Your task to perform on an android device: Go to network settings Image 0: 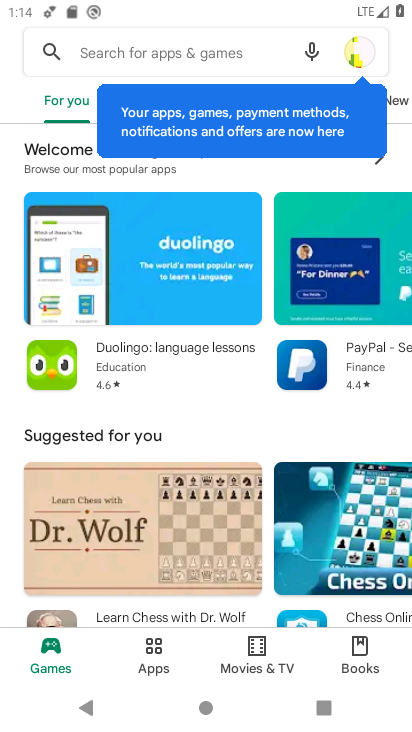
Step 0: press home button
Your task to perform on an android device: Go to network settings Image 1: 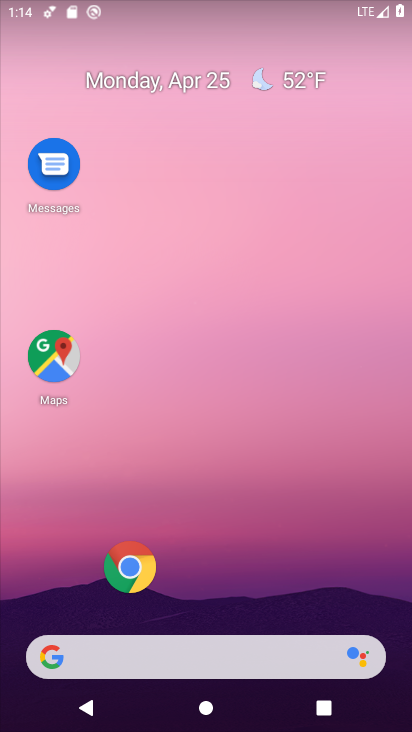
Step 1: drag from (274, 541) to (308, 10)
Your task to perform on an android device: Go to network settings Image 2: 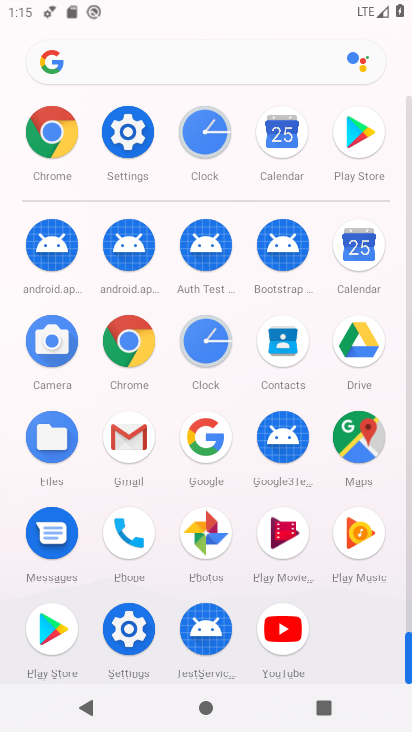
Step 2: click (126, 136)
Your task to perform on an android device: Go to network settings Image 3: 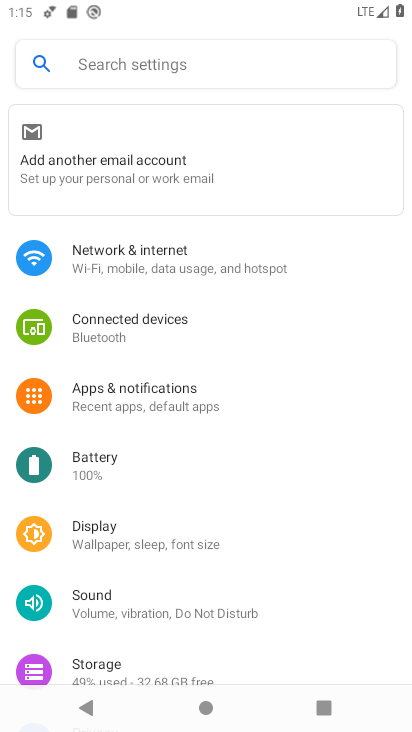
Step 3: click (194, 282)
Your task to perform on an android device: Go to network settings Image 4: 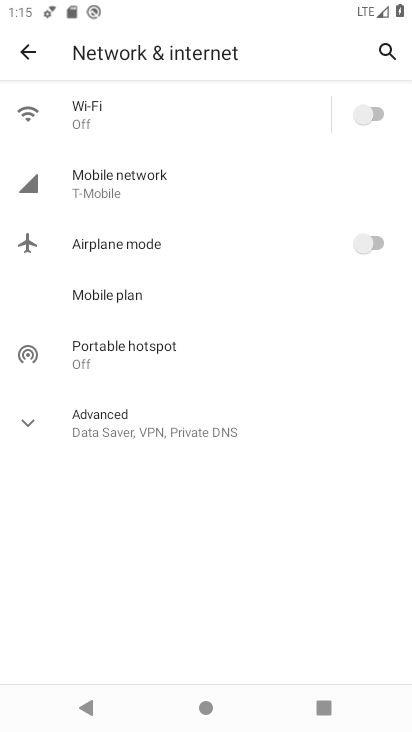
Step 4: click (174, 117)
Your task to perform on an android device: Go to network settings Image 5: 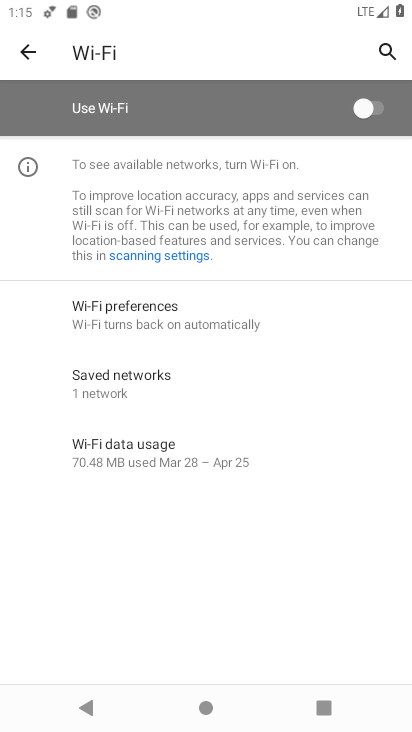
Step 5: click (21, 53)
Your task to perform on an android device: Go to network settings Image 6: 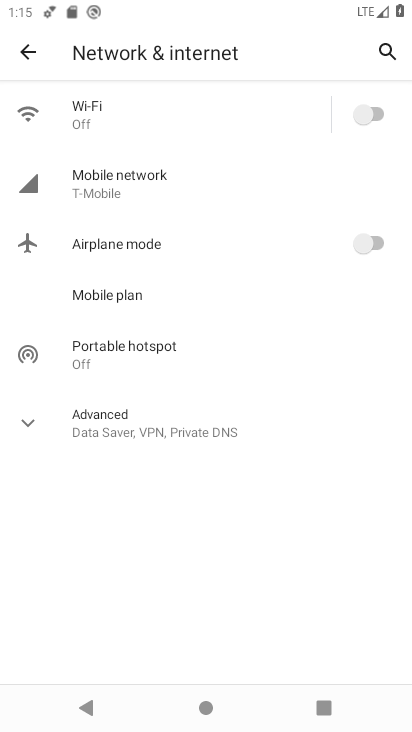
Step 6: click (148, 195)
Your task to perform on an android device: Go to network settings Image 7: 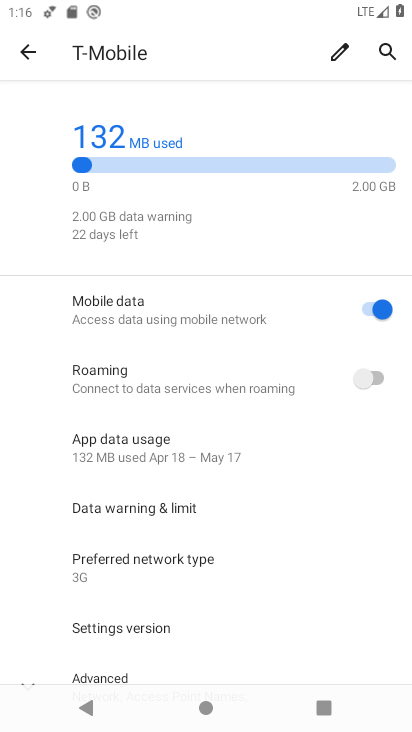
Step 7: task complete